Your task to perform on an android device: Go to sound settings Image 0: 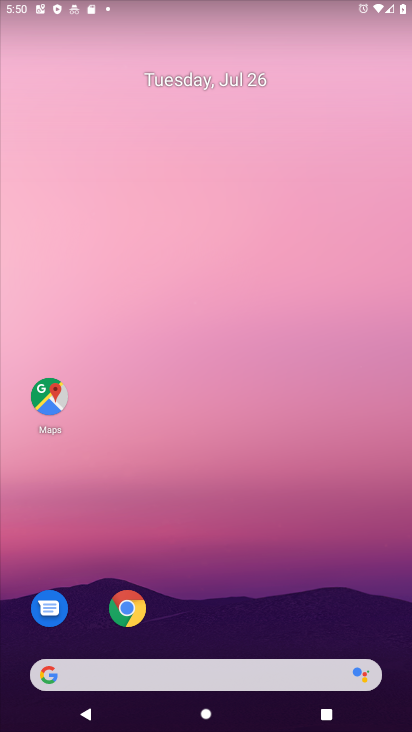
Step 0: press home button
Your task to perform on an android device: Go to sound settings Image 1: 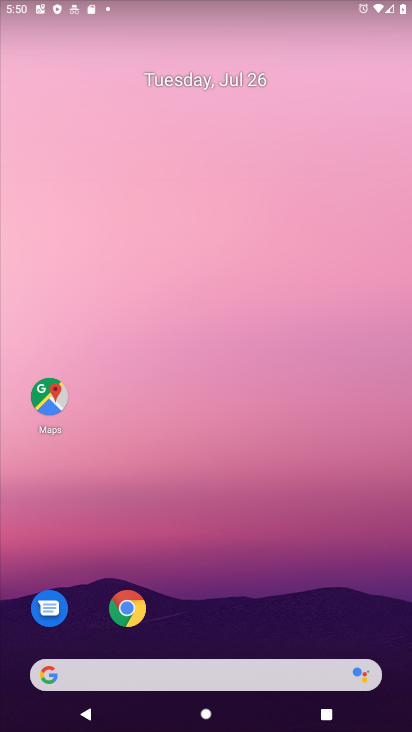
Step 1: drag from (224, 648) to (143, 123)
Your task to perform on an android device: Go to sound settings Image 2: 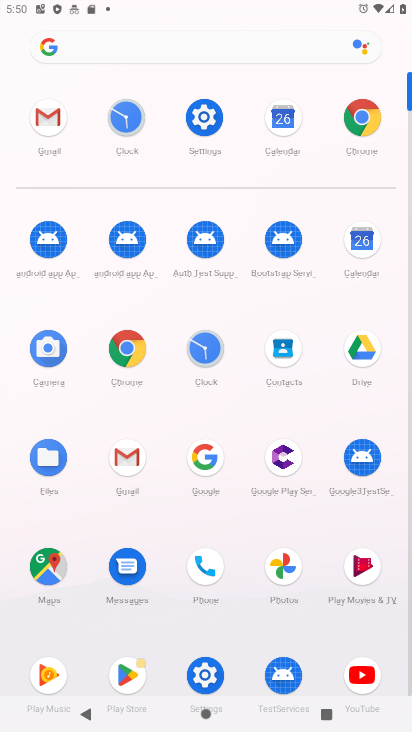
Step 2: click (200, 115)
Your task to perform on an android device: Go to sound settings Image 3: 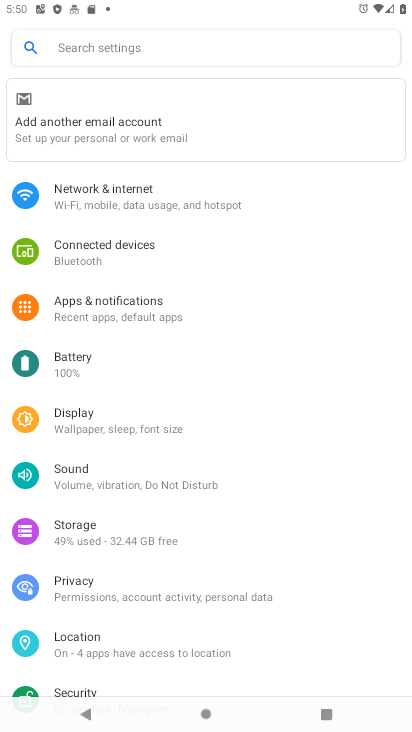
Step 3: click (73, 476)
Your task to perform on an android device: Go to sound settings Image 4: 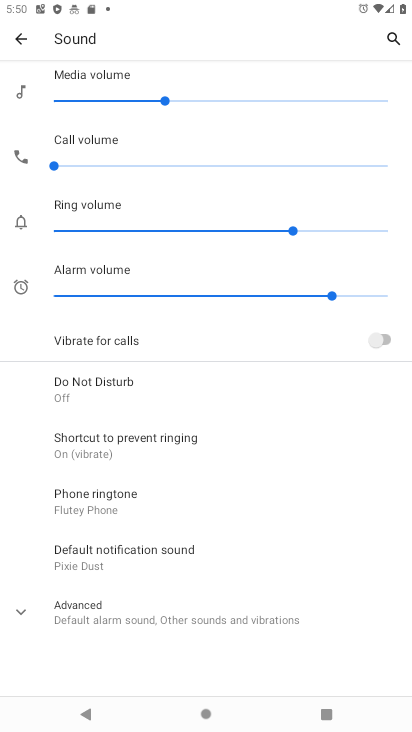
Step 4: task complete